Your task to perform on an android device: turn on priority inbox in the gmail app Image 0: 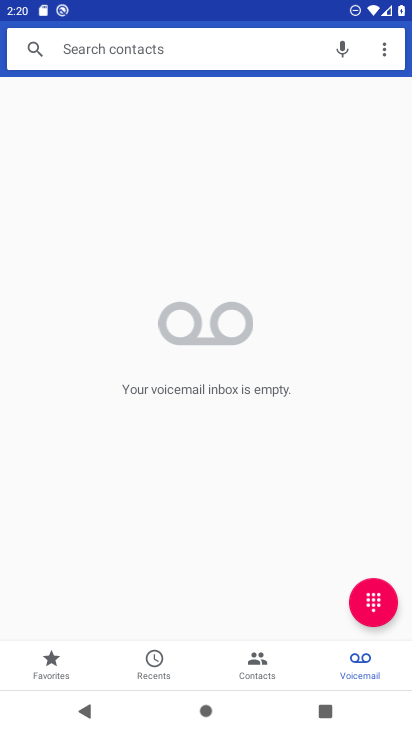
Step 0: press home button
Your task to perform on an android device: turn on priority inbox in the gmail app Image 1: 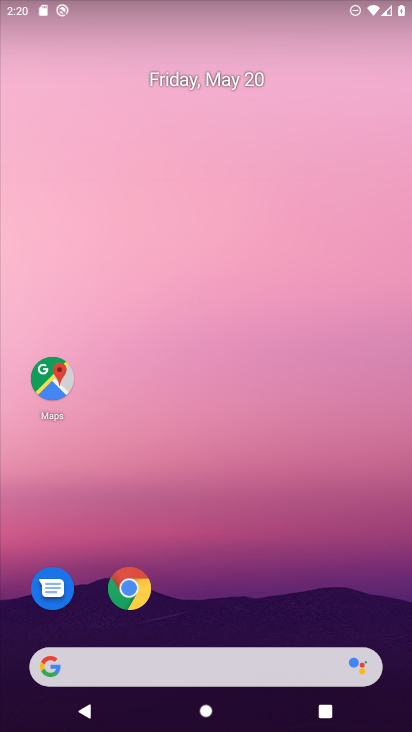
Step 1: drag from (380, 619) to (307, 73)
Your task to perform on an android device: turn on priority inbox in the gmail app Image 2: 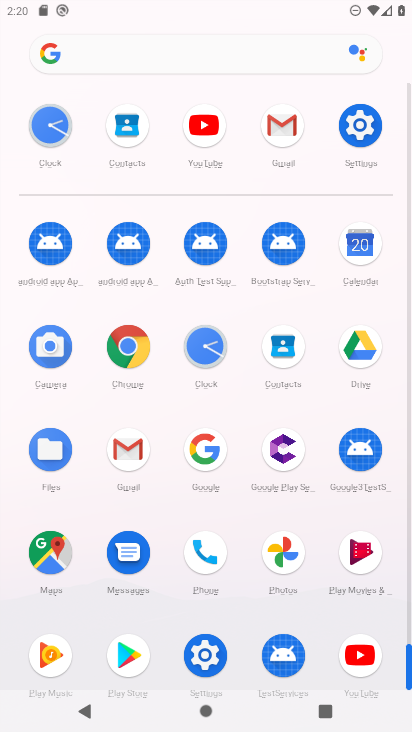
Step 2: click (126, 445)
Your task to perform on an android device: turn on priority inbox in the gmail app Image 3: 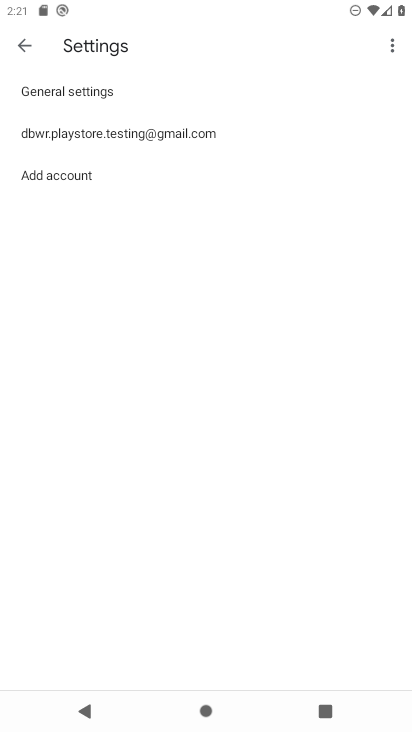
Step 3: click (103, 130)
Your task to perform on an android device: turn on priority inbox in the gmail app Image 4: 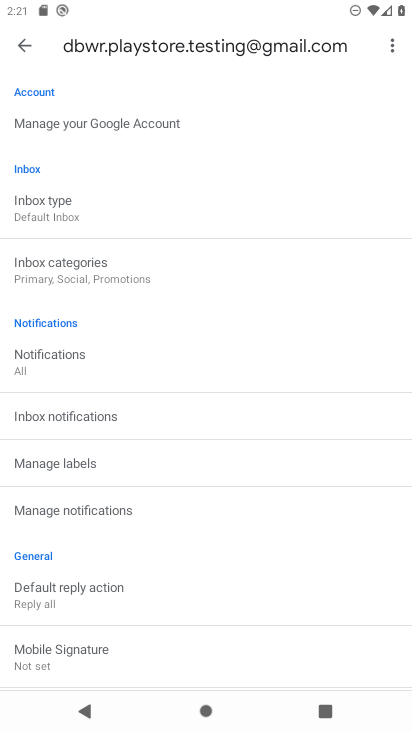
Step 4: click (62, 210)
Your task to perform on an android device: turn on priority inbox in the gmail app Image 5: 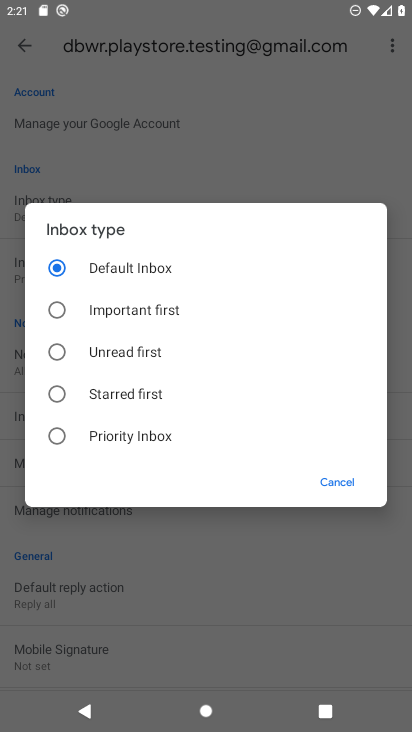
Step 5: click (58, 441)
Your task to perform on an android device: turn on priority inbox in the gmail app Image 6: 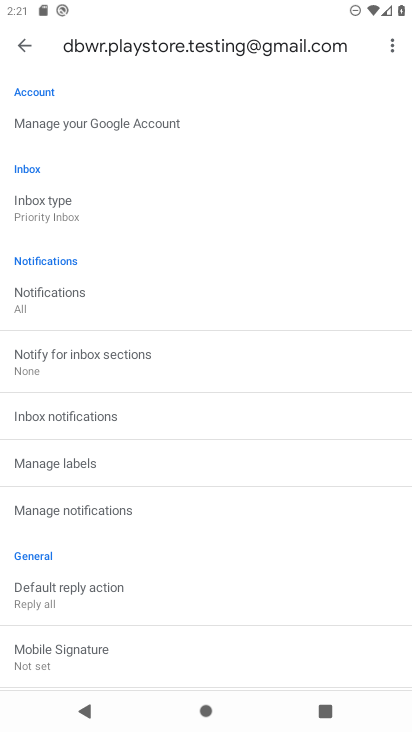
Step 6: task complete